Your task to perform on an android device: visit the assistant section in the google photos Image 0: 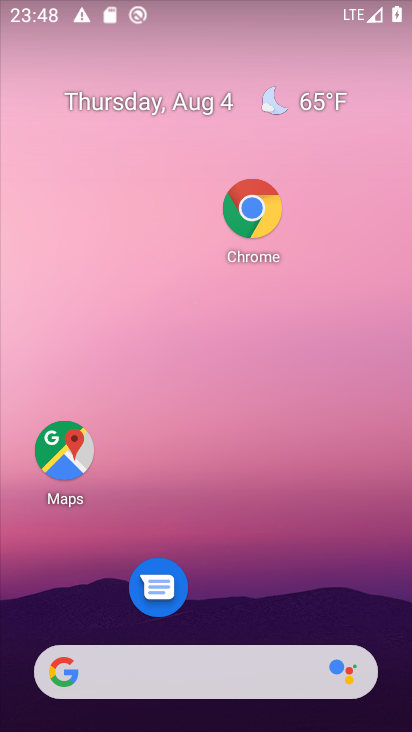
Step 0: drag from (217, 619) to (217, 189)
Your task to perform on an android device: visit the assistant section in the google photos Image 1: 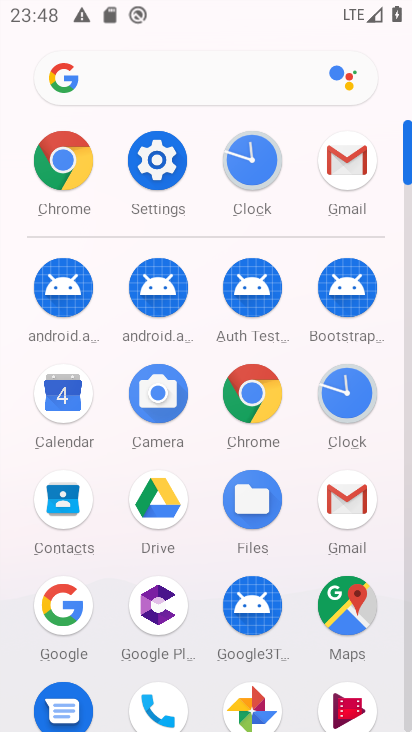
Step 1: click (347, 602)
Your task to perform on an android device: visit the assistant section in the google photos Image 2: 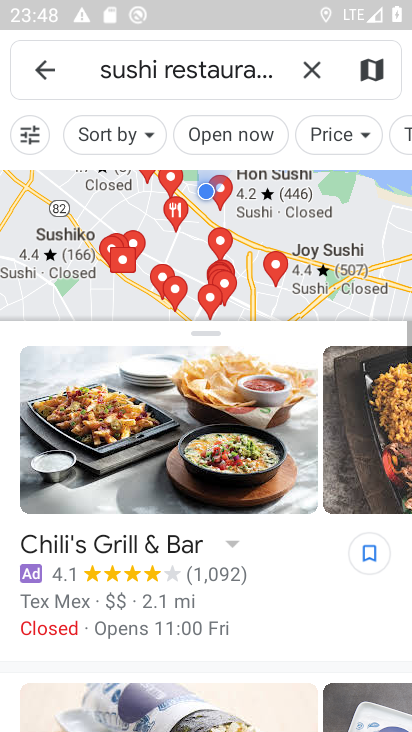
Step 2: press home button
Your task to perform on an android device: visit the assistant section in the google photos Image 3: 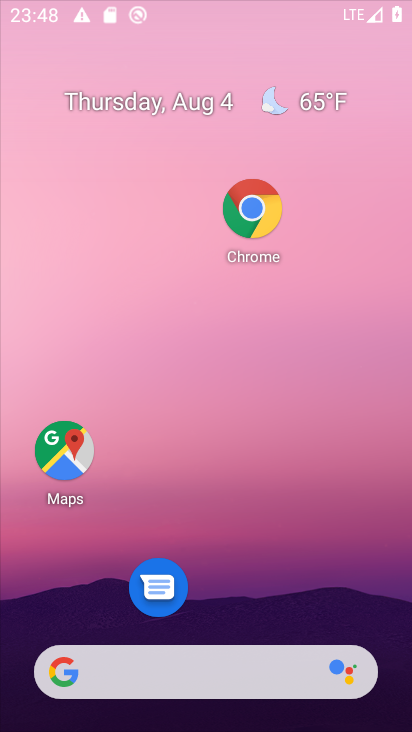
Step 3: drag from (173, 651) to (242, 178)
Your task to perform on an android device: visit the assistant section in the google photos Image 4: 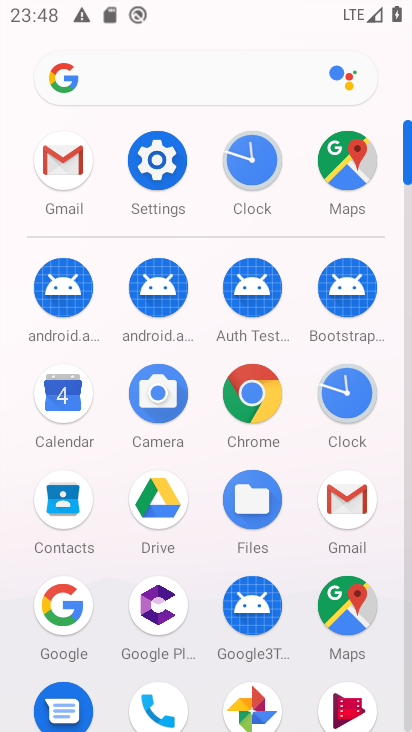
Step 4: click (239, 700)
Your task to perform on an android device: visit the assistant section in the google photos Image 5: 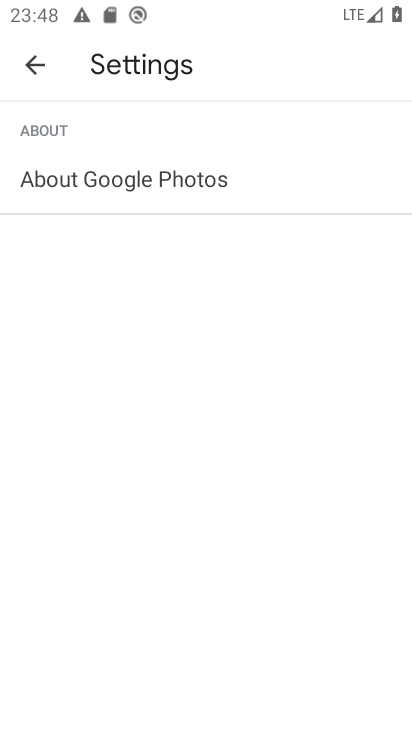
Step 5: click (23, 64)
Your task to perform on an android device: visit the assistant section in the google photos Image 6: 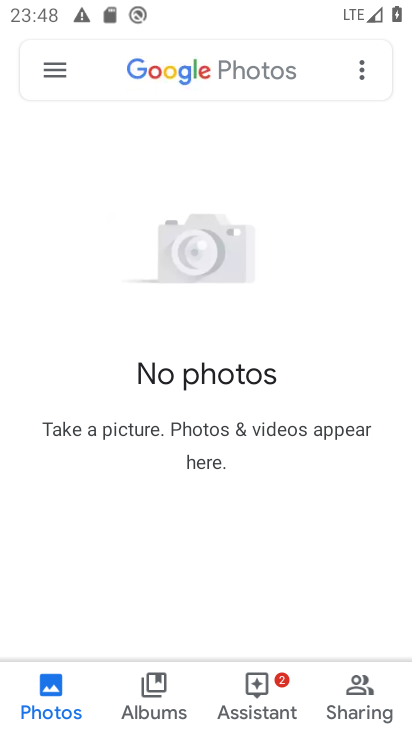
Step 6: click (251, 692)
Your task to perform on an android device: visit the assistant section in the google photos Image 7: 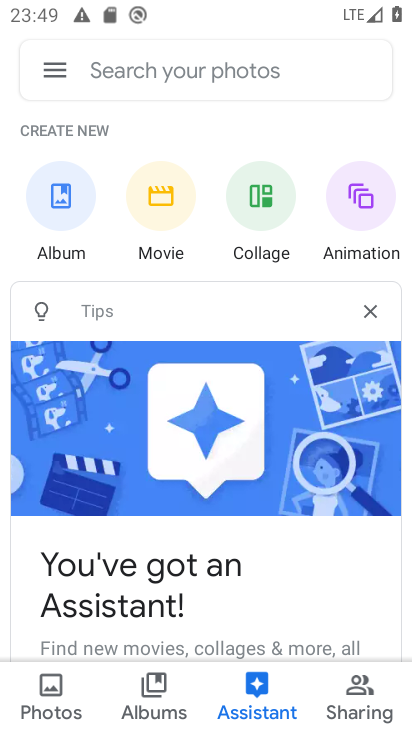
Step 7: task complete